Your task to perform on an android device: Open wifi settings Image 0: 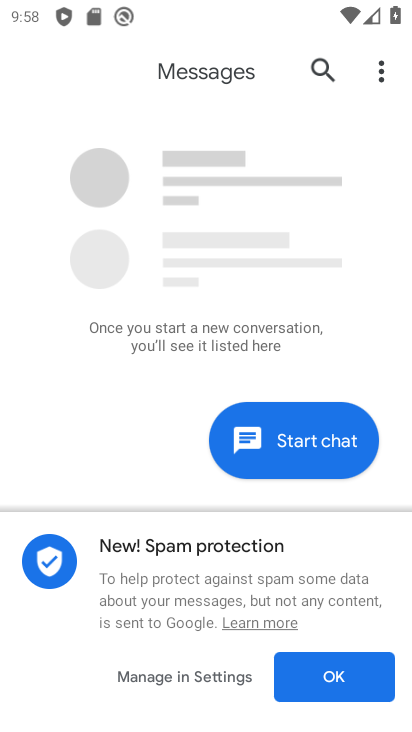
Step 0: press home button
Your task to perform on an android device: Open wifi settings Image 1: 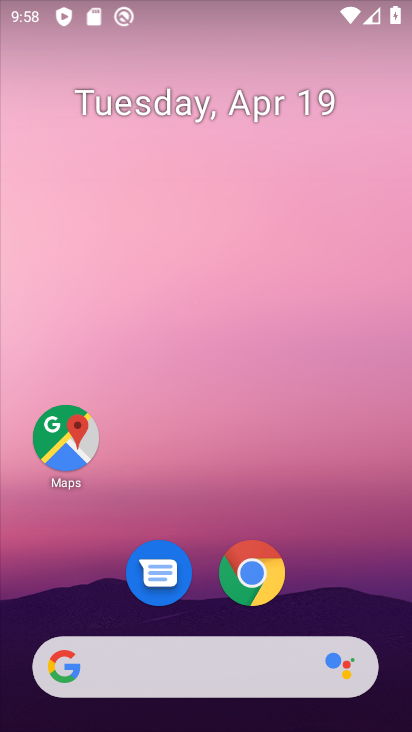
Step 1: drag from (210, 725) to (177, 25)
Your task to perform on an android device: Open wifi settings Image 2: 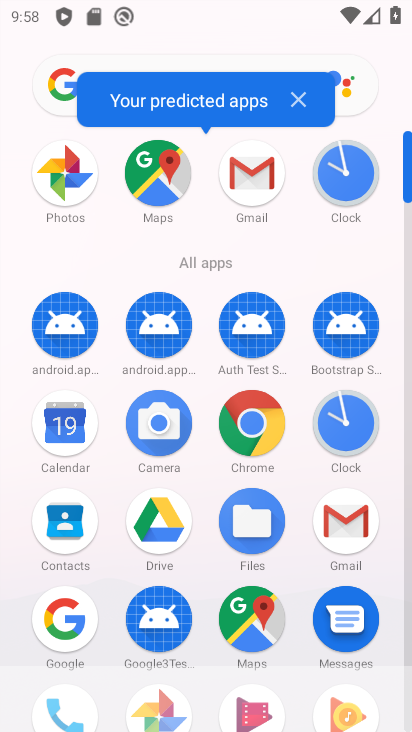
Step 2: drag from (203, 619) to (204, 156)
Your task to perform on an android device: Open wifi settings Image 3: 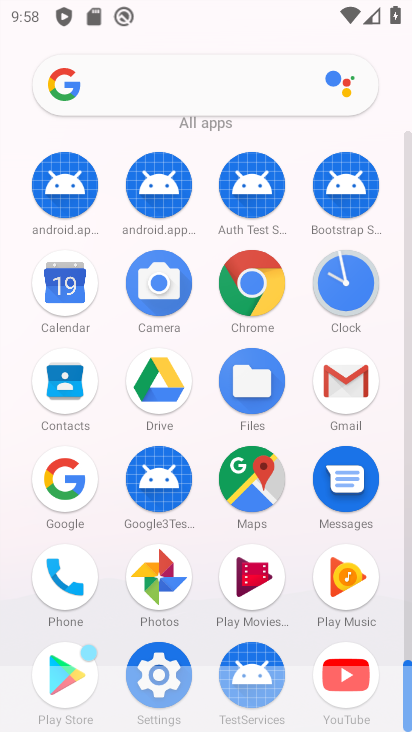
Step 3: drag from (206, 637) to (205, 214)
Your task to perform on an android device: Open wifi settings Image 4: 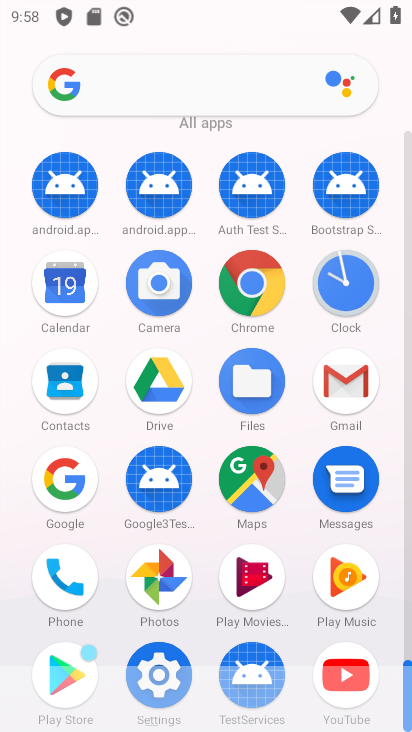
Step 4: click (154, 668)
Your task to perform on an android device: Open wifi settings Image 5: 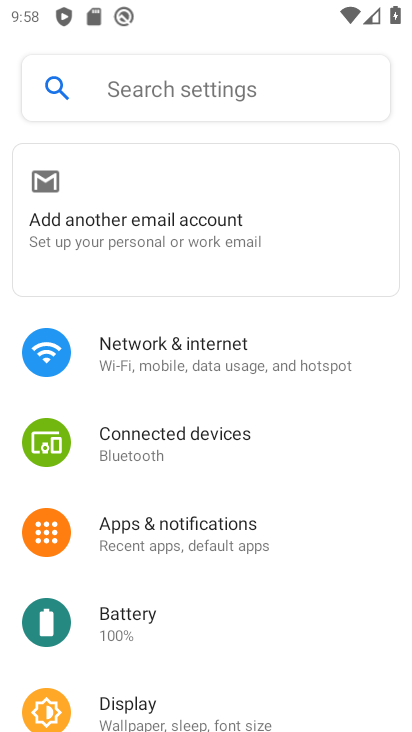
Step 5: click (160, 353)
Your task to perform on an android device: Open wifi settings Image 6: 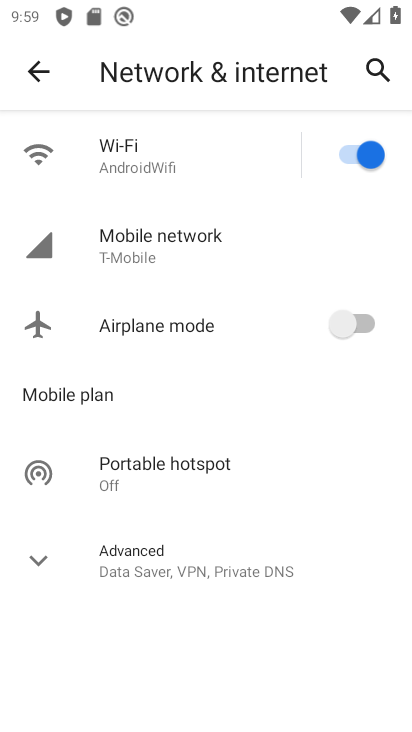
Step 6: click (128, 159)
Your task to perform on an android device: Open wifi settings Image 7: 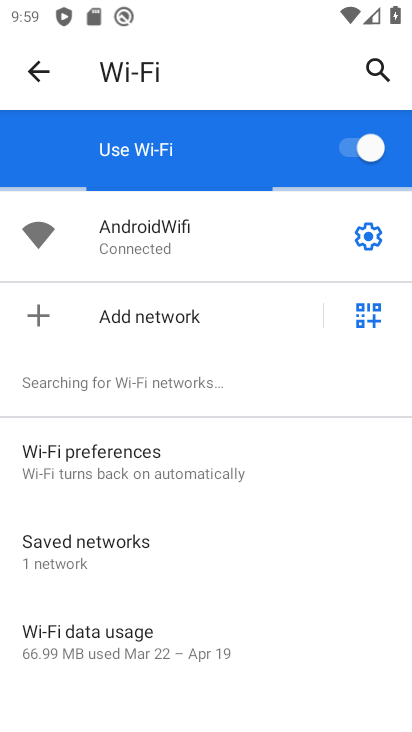
Step 7: click (366, 238)
Your task to perform on an android device: Open wifi settings Image 8: 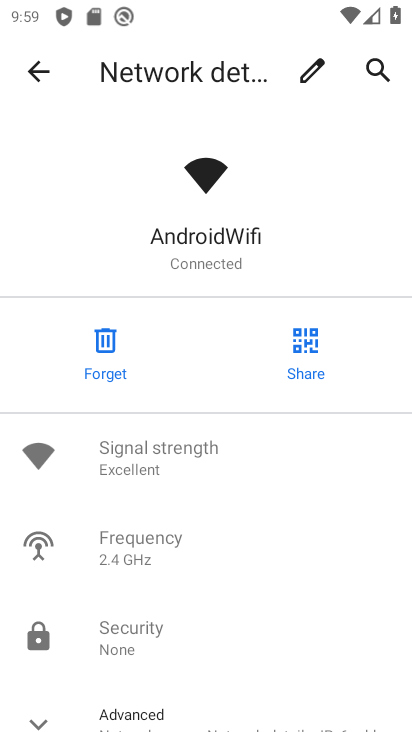
Step 8: task complete